Your task to perform on an android device: turn off javascript in the chrome app Image 0: 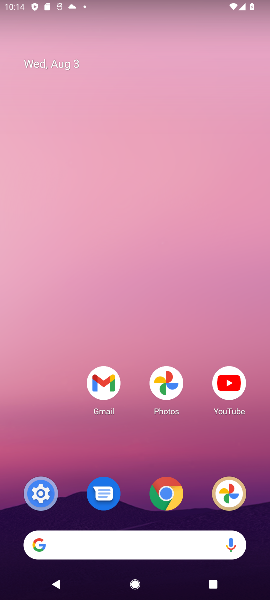
Step 0: click (164, 486)
Your task to perform on an android device: turn off javascript in the chrome app Image 1: 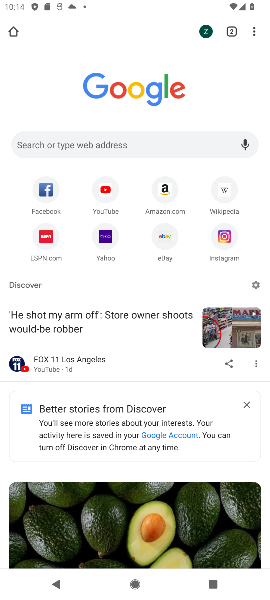
Step 1: click (251, 26)
Your task to perform on an android device: turn off javascript in the chrome app Image 2: 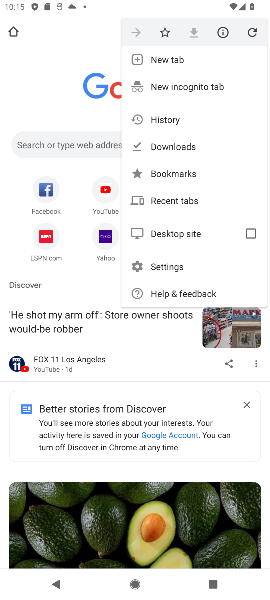
Step 2: click (176, 262)
Your task to perform on an android device: turn off javascript in the chrome app Image 3: 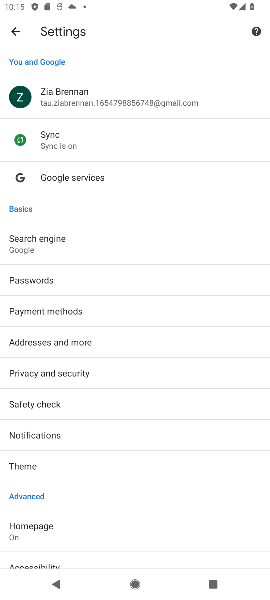
Step 3: drag from (93, 532) to (131, 191)
Your task to perform on an android device: turn off javascript in the chrome app Image 4: 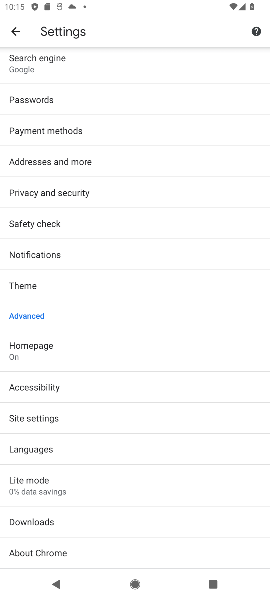
Step 4: click (71, 412)
Your task to perform on an android device: turn off javascript in the chrome app Image 5: 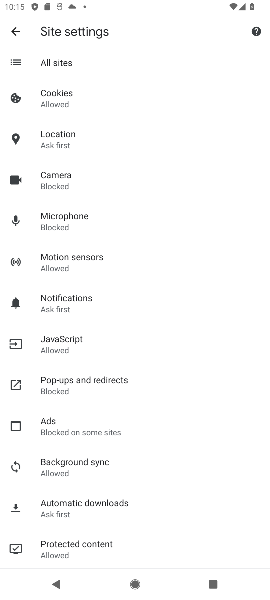
Step 5: click (73, 342)
Your task to perform on an android device: turn off javascript in the chrome app Image 6: 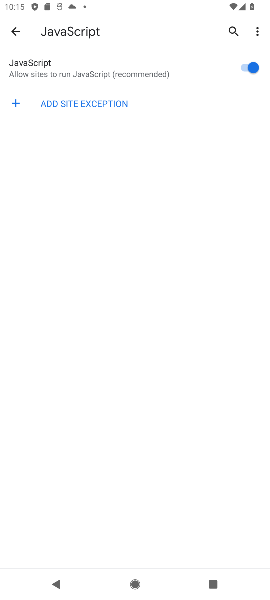
Step 6: click (245, 63)
Your task to perform on an android device: turn off javascript in the chrome app Image 7: 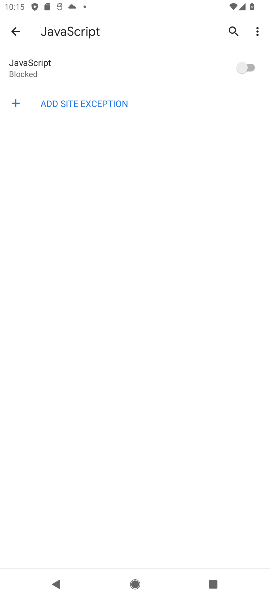
Step 7: task complete